Your task to perform on an android device: change the clock display to show seconds Image 0: 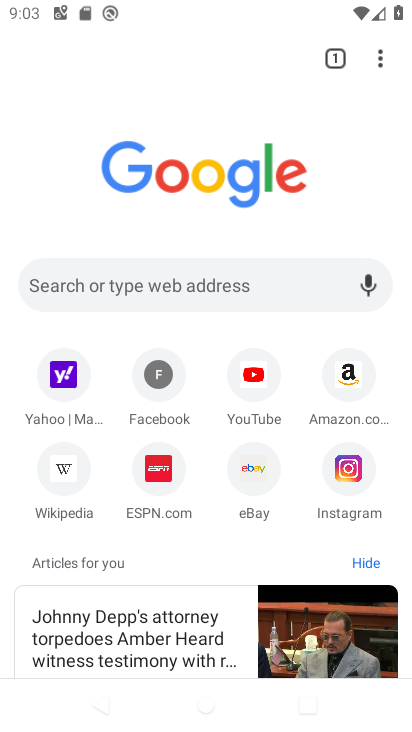
Step 0: press back button
Your task to perform on an android device: change the clock display to show seconds Image 1: 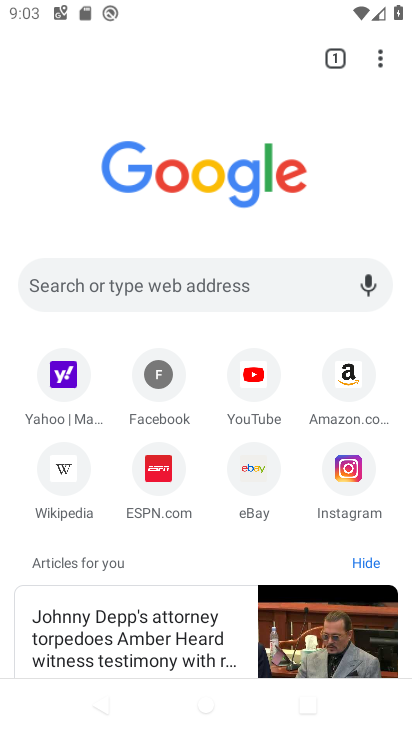
Step 1: press back button
Your task to perform on an android device: change the clock display to show seconds Image 2: 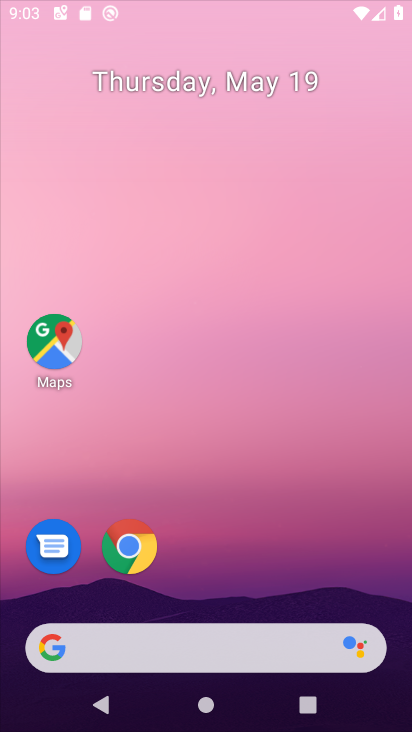
Step 2: press back button
Your task to perform on an android device: change the clock display to show seconds Image 3: 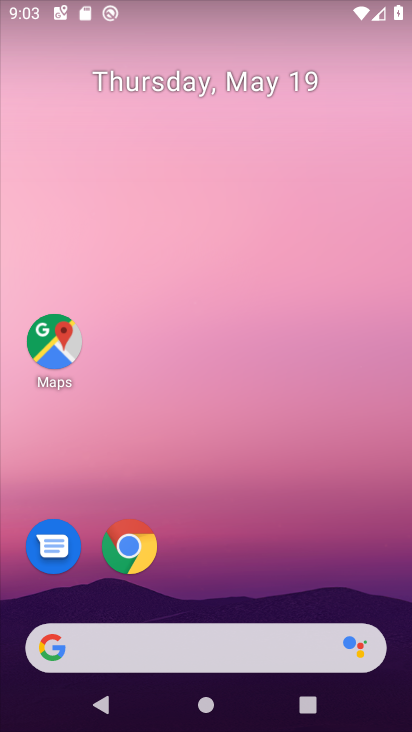
Step 3: drag from (231, 652) to (363, 1)
Your task to perform on an android device: change the clock display to show seconds Image 4: 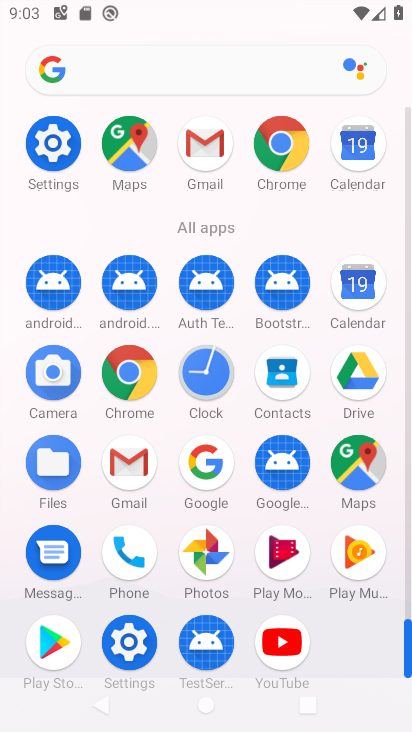
Step 4: click (199, 379)
Your task to perform on an android device: change the clock display to show seconds Image 5: 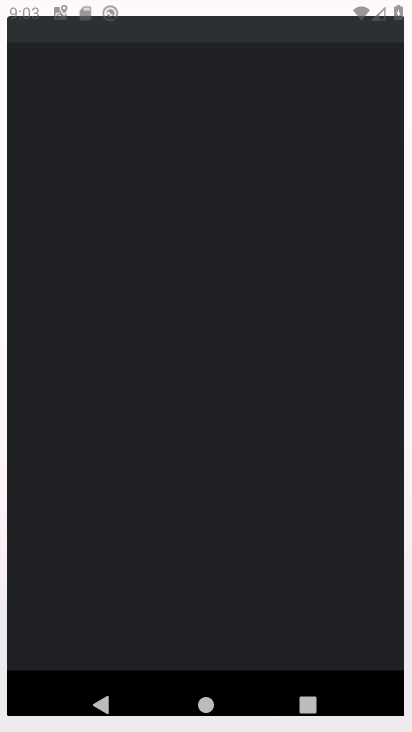
Step 5: click (201, 372)
Your task to perform on an android device: change the clock display to show seconds Image 6: 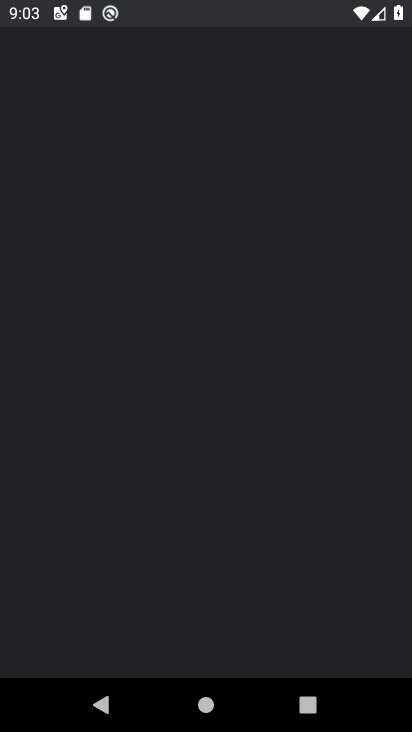
Step 6: click (201, 372)
Your task to perform on an android device: change the clock display to show seconds Image 7: 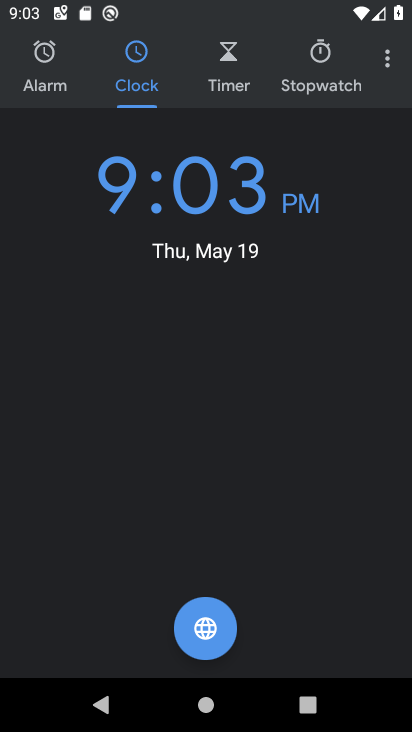
Step 7: click (384, 58)
Your task to perform on an android device: change the clock display to show seconds Image 8: 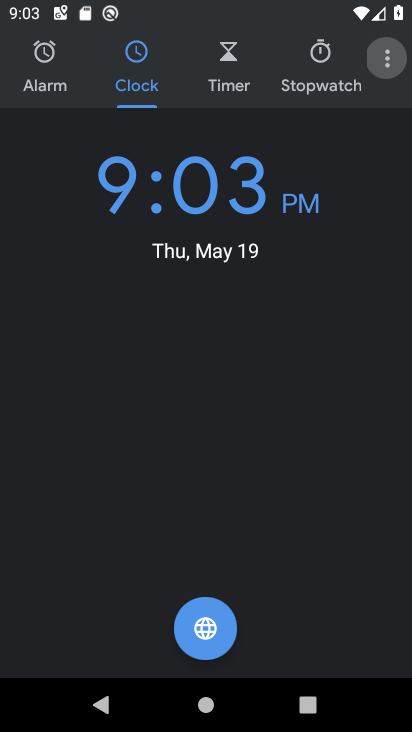
Step 8: click (384, 58)
Your task to perform on an android device: change the clock display to show seconds Image 9: 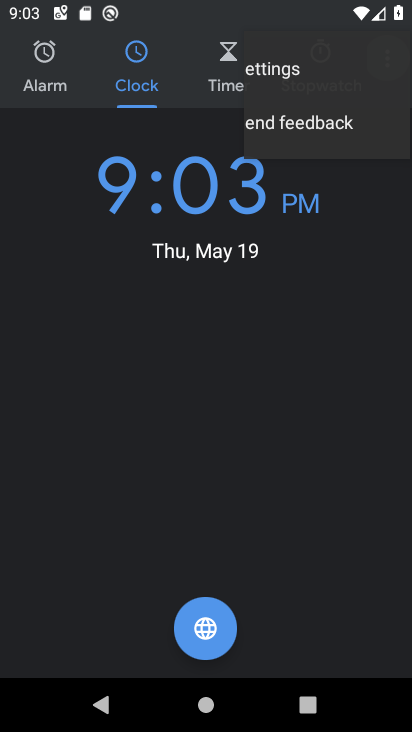
Step 9: click (384, 58)
Your task to perform on an android device: change the clock display to show seconds Image 10: 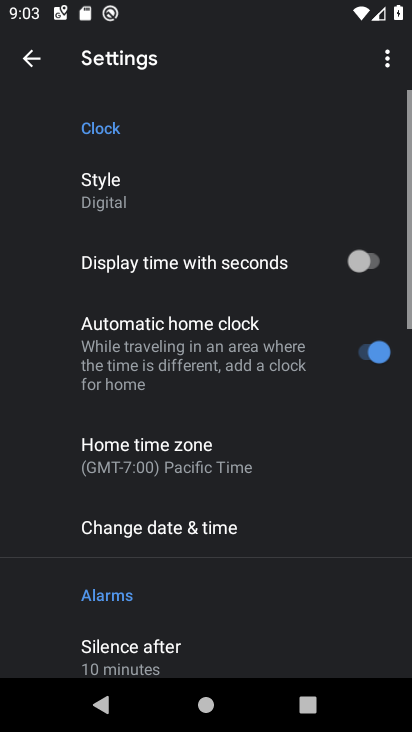
Step 10: click (278, 116)
Your task to perform on an android device: change the clock display to show seconds Image 11: 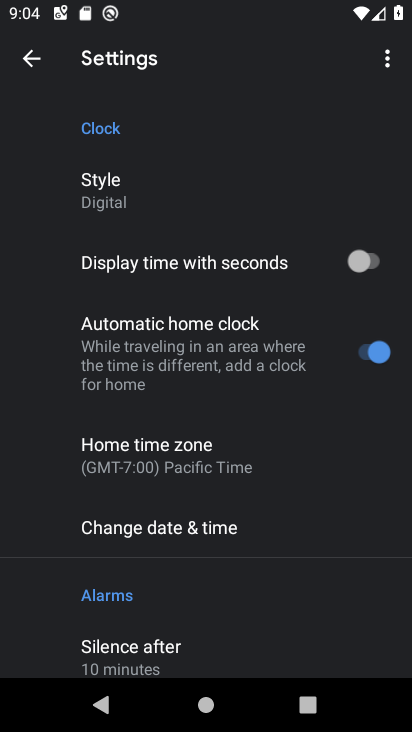
Step 11: click (357, 264)
Your task to perform on an android device: change the clock display to show seconds Image 12: 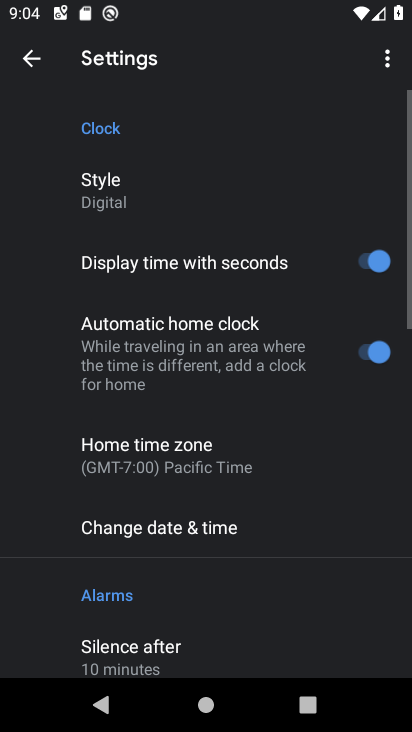
Step 12: task complete